Your task to perform on an android device: Find coffee shops on Maps Image 0: 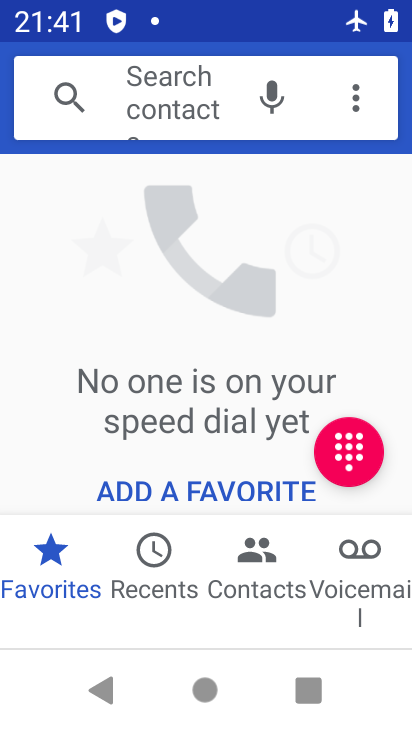
Step 0: press home button
Your task to perform on an android device: Find coffee shops on Maps Image 1: 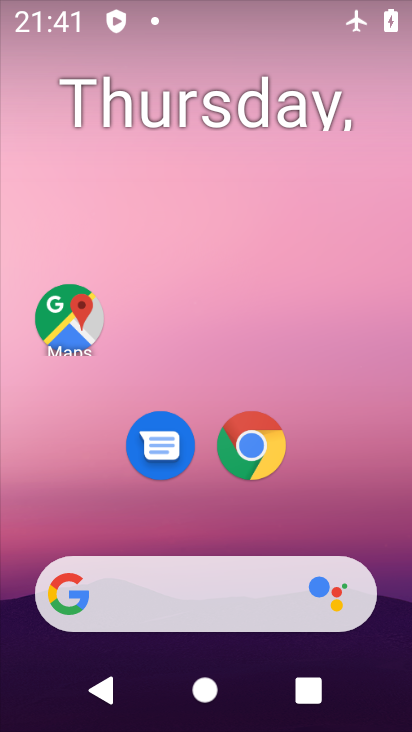
Step 1: click (57, 311)
Your task to perform on an android device: Find coffee shops on Maps Image 2: 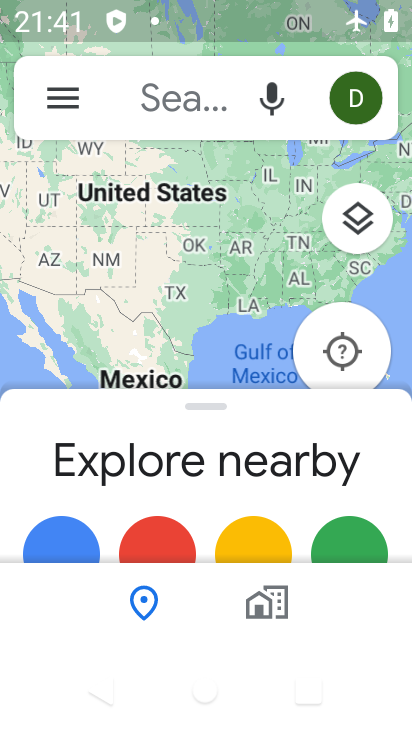
Step 2: click (136, 91)
Your task to perform on an android device: Find coffee shops on Maps Image 3: 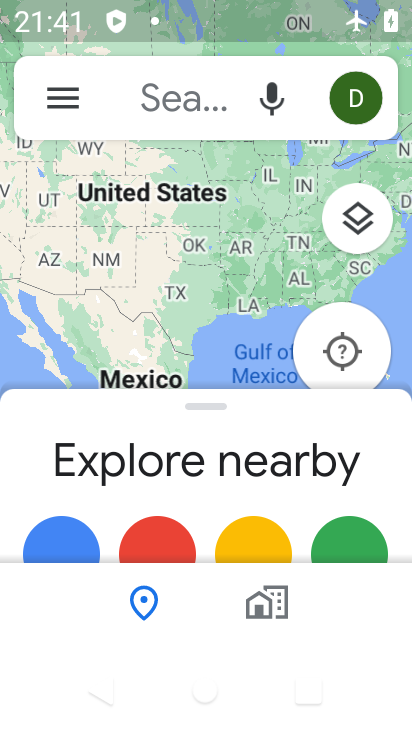
Step 3: click (195, 92)
Your task to perform on an android device: Find coffee shops on Maps Image 4: 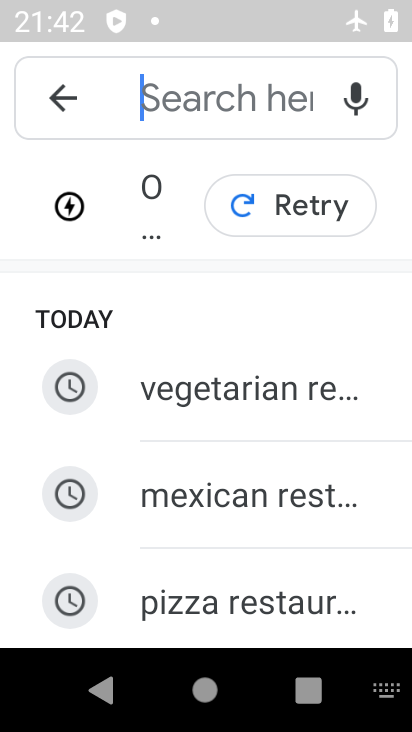
Step 4: drag from (37, 493) to (226, 164)
Your task to perform on an android device: Find coffee shops on Maps Image 5: 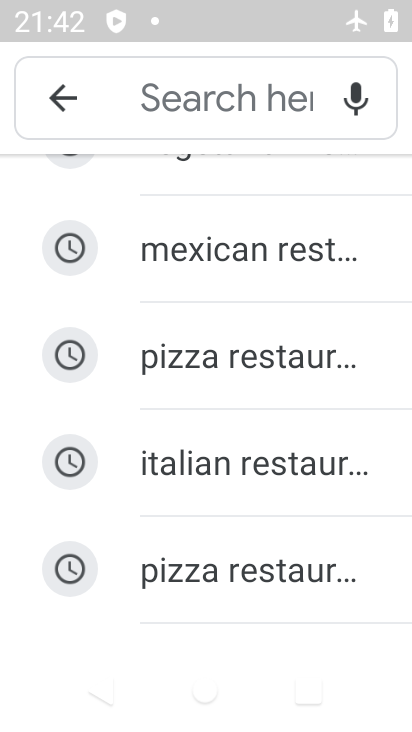
Step 5: drag from (12, 643) to (218, 217)
Your task to perform on an android device: Find coffee shops on Maps Image 6: 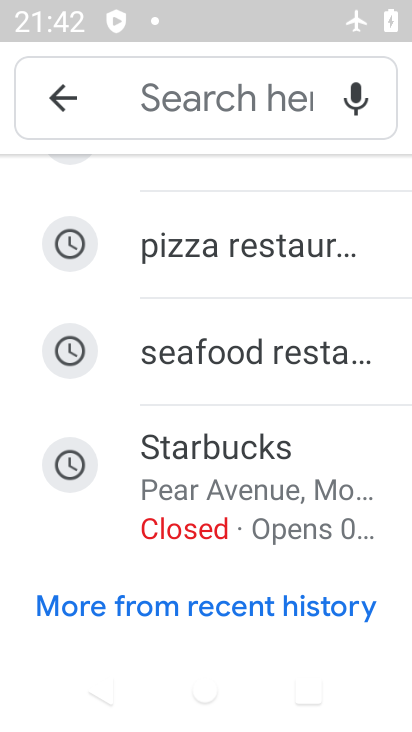
Step 6: click (204, 85)
Your task to perform on an android device: Find coffee shops on Maps Image 7: 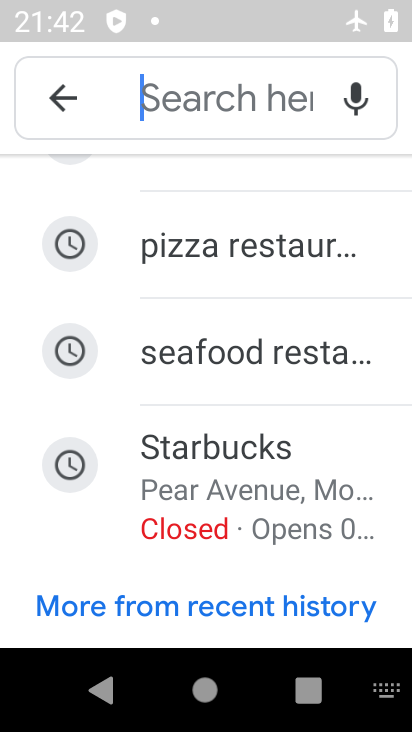
Step 7: type "coffee"
Your task to perform on an android device: Find coffee shops on Maps Image 8: 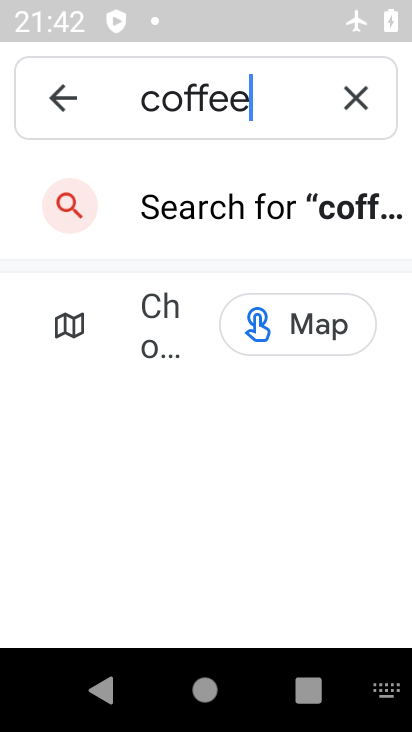
Step 8: type ""
Your task to perform on an android device: Find coffee shops on Maps Image 9: 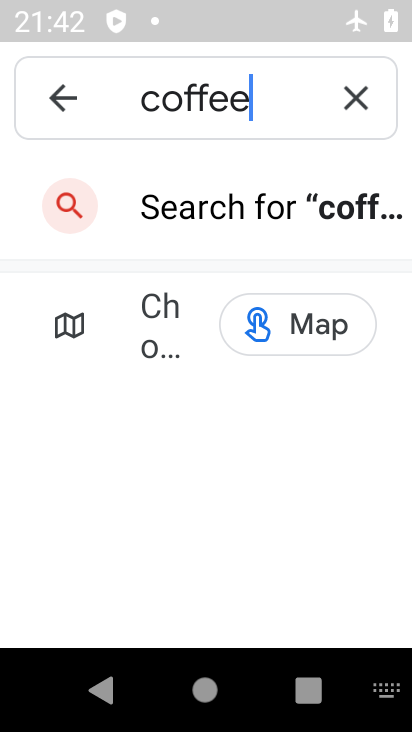
Step 9: drag from (367, 13) to (279, 507)
Your task to perform on an android device: Find coffee shops on Maps Image 10: 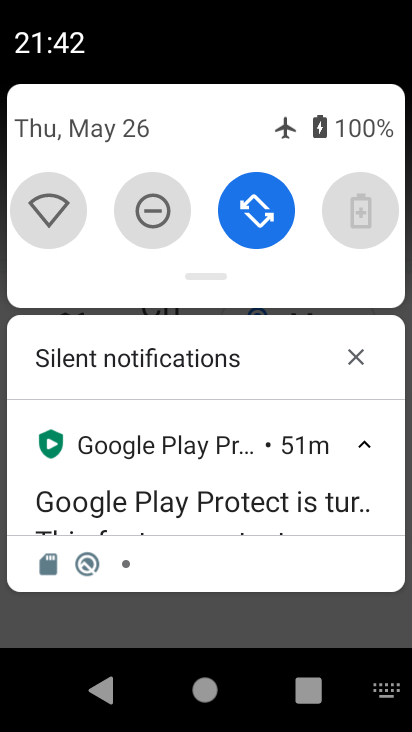
Step 10: drag from (209, 276) to (142, 576)
Your task to perform on an android device: Find coffee shops on Maps Image 11: 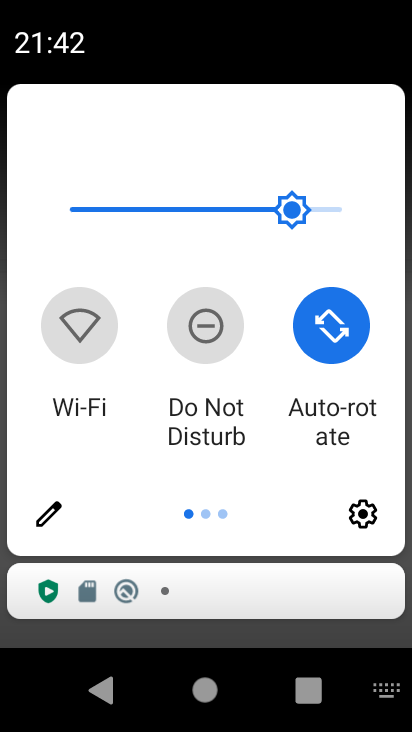
Step 11: drag from (296, 411) to (3, 381)
Your task to perform on an android device: Find coffee shops on Maps Image 12: 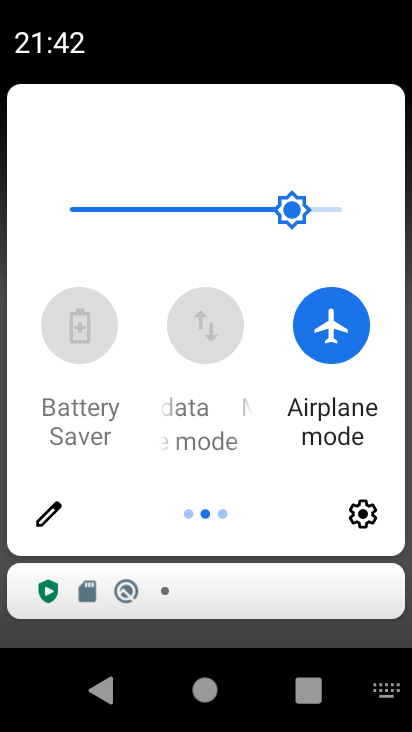
Step 12: click (348, 325)
Your task to perform on an android device: Find coffee shops on Maps Image 13: 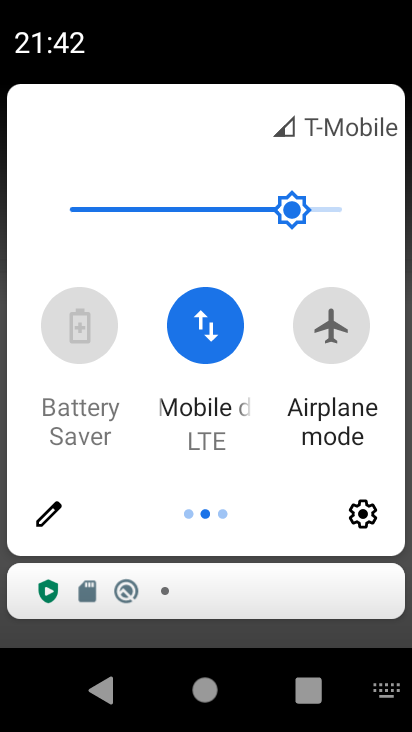
Step 13: drag from (248, 625) to (321, 198)
Your task to perform on an android device: Find coffee shops on Maps Image 14: 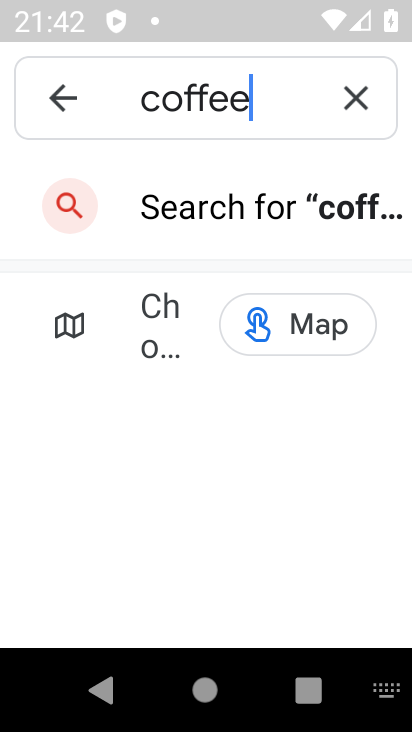
Step 14: click (299, 216)
Your task to perform on an android device: Find coffee shops on Maps Image 15: 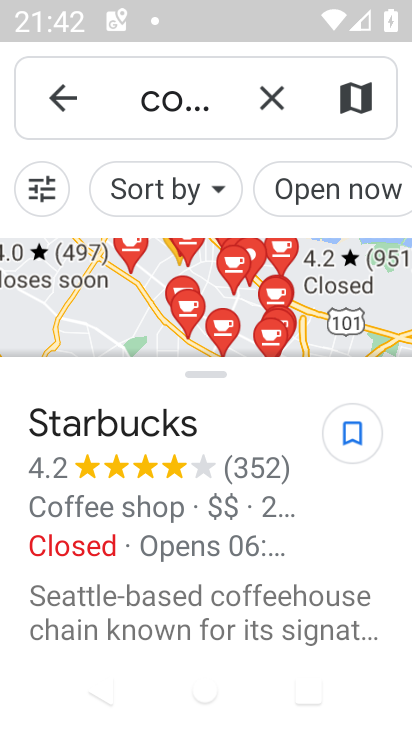
Step 15: task complete